Your task to perform on an android device: Search for the best rated electric lawnmower on Home Depot Image 0: 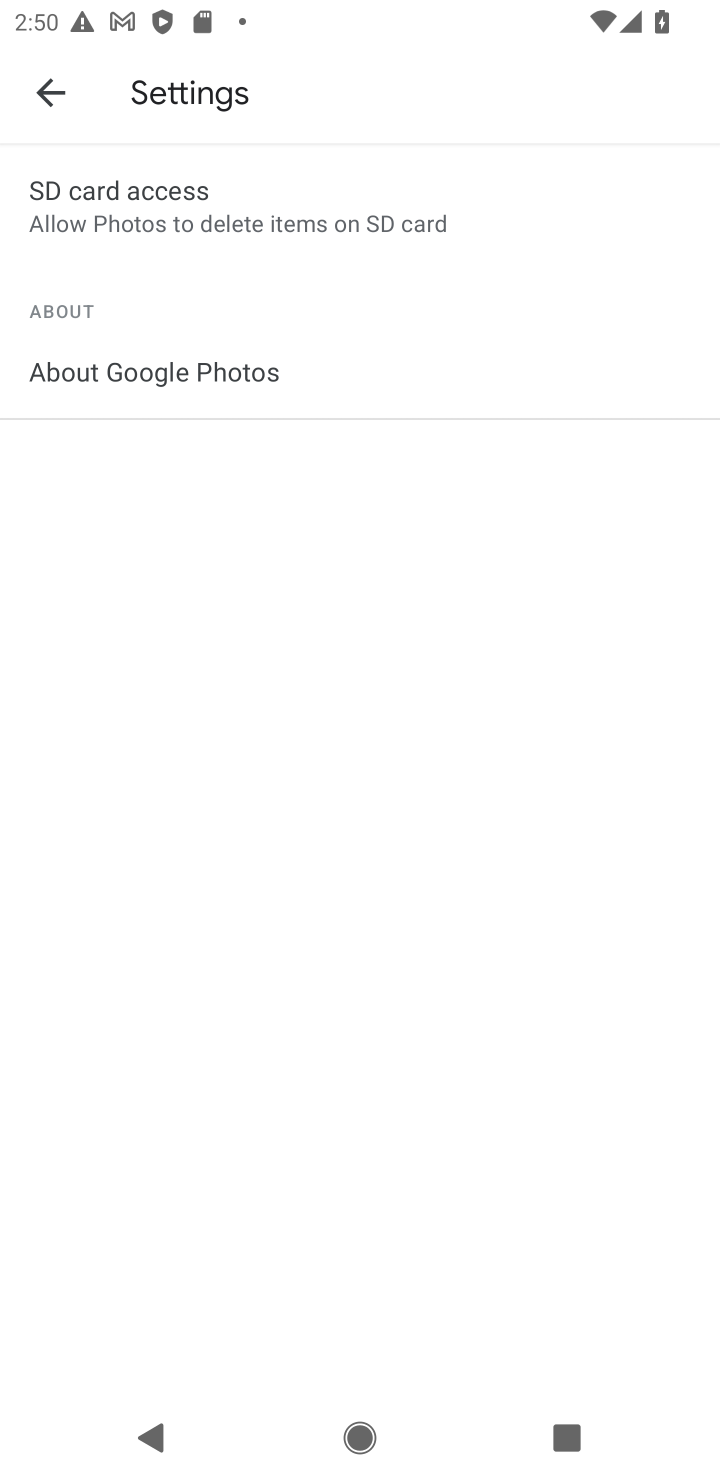
Step 0: press home button
Your task to perform on an android device: Search for the best rated electric lawnmower on Home Depot Image 1: 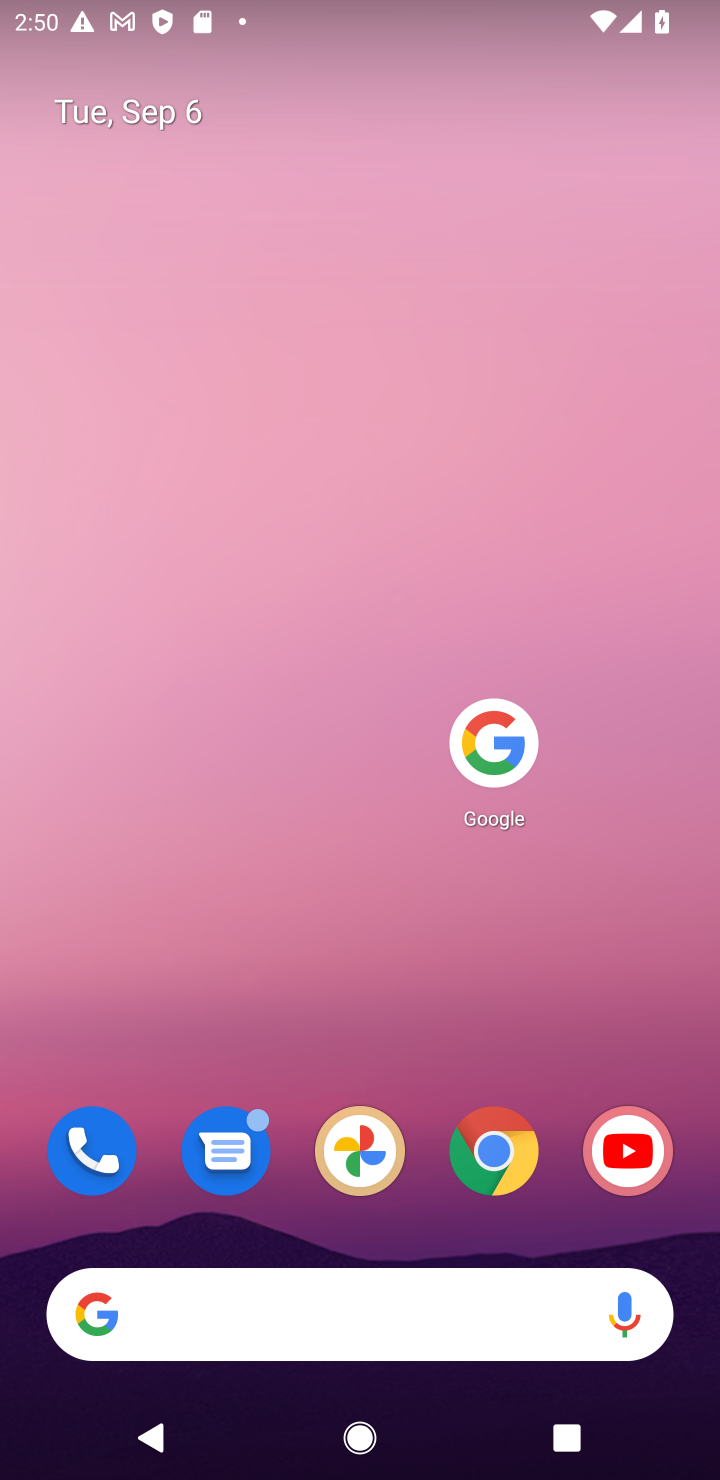
Step 1: click (497, 729)
Your task to perform on an android device: Search for the best rated electric lawnmower on Home Depot Image 2: 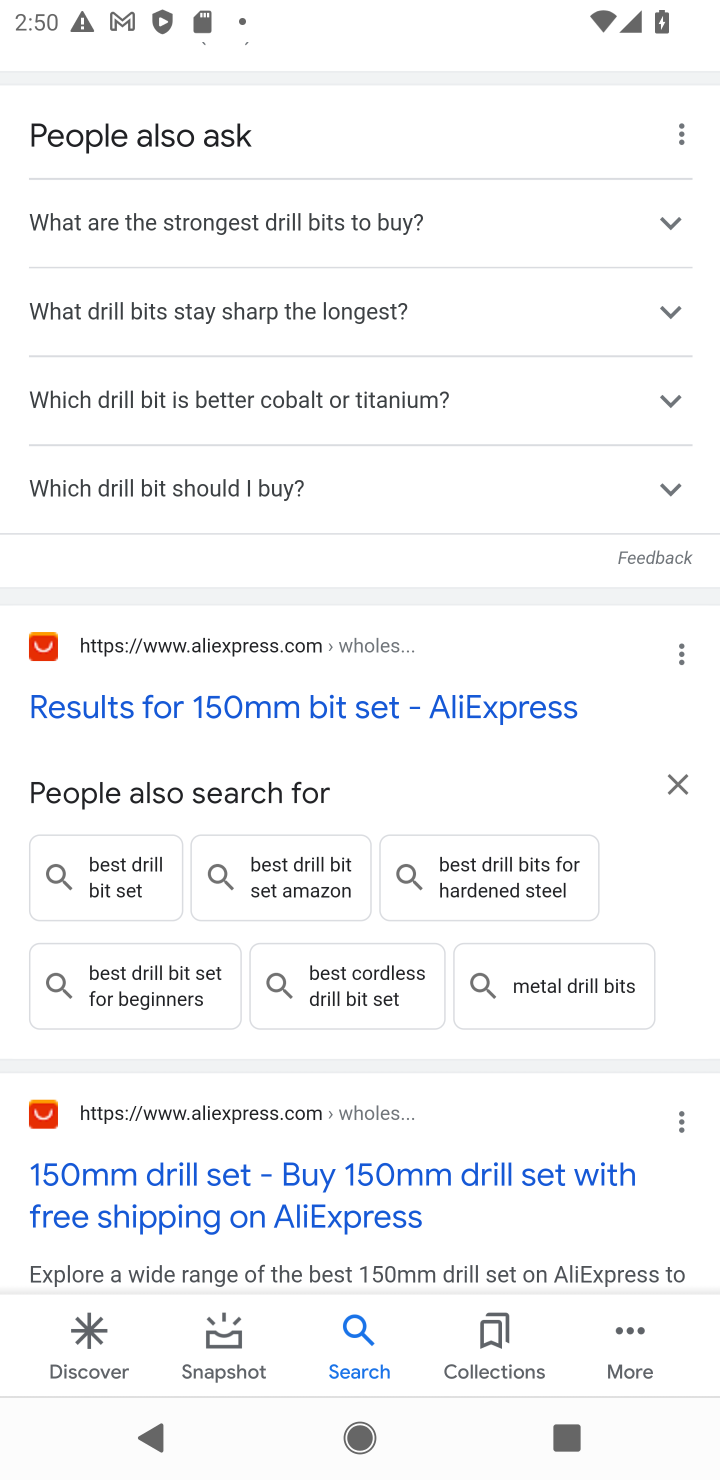
Step 2: drag from (278, 206) to (317, 1287)
Your task to perform on an android device: Search for the best rated electric lawnmower on Home Depot Image 3: 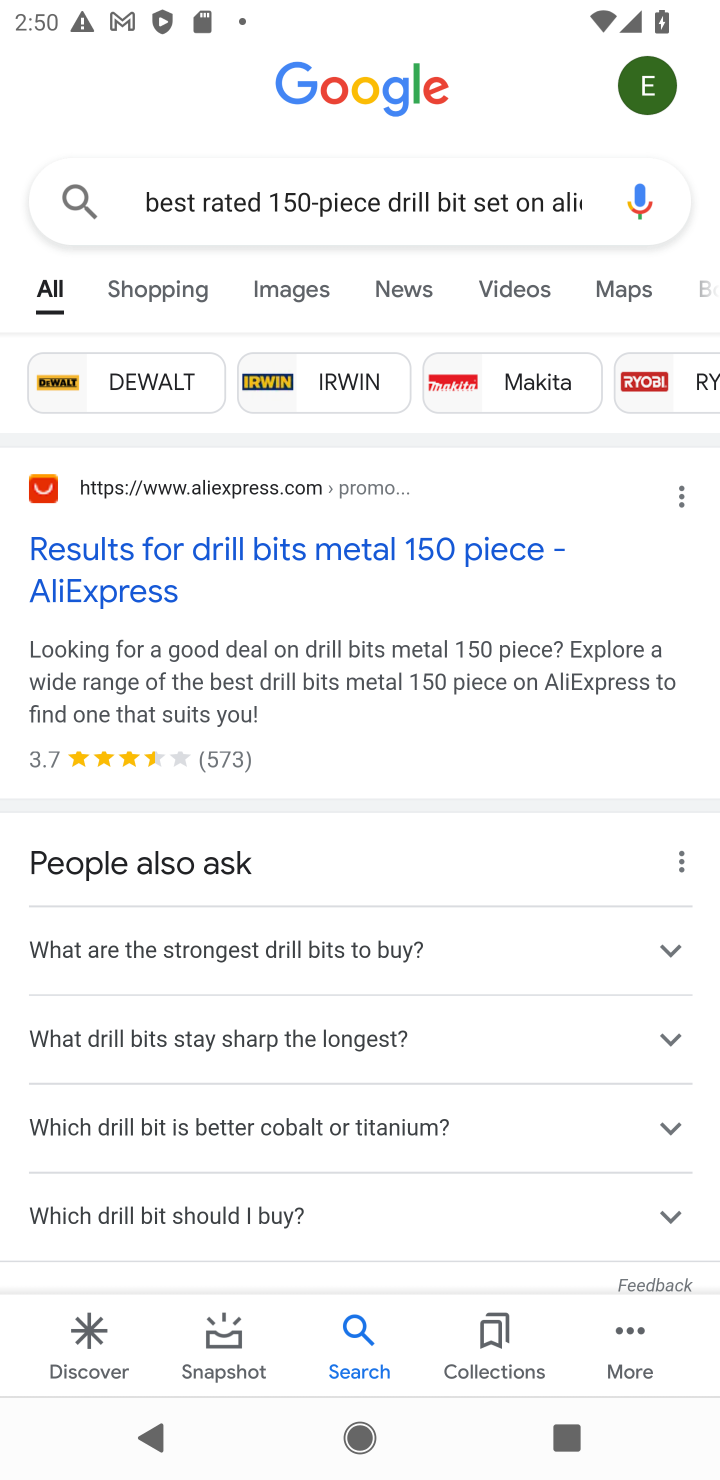
Step 3: drag from (332, 190) to (412, 1105)
Your task to perform on an android device: Search for the best rated electric lawnmower on Home Depot Image 4: 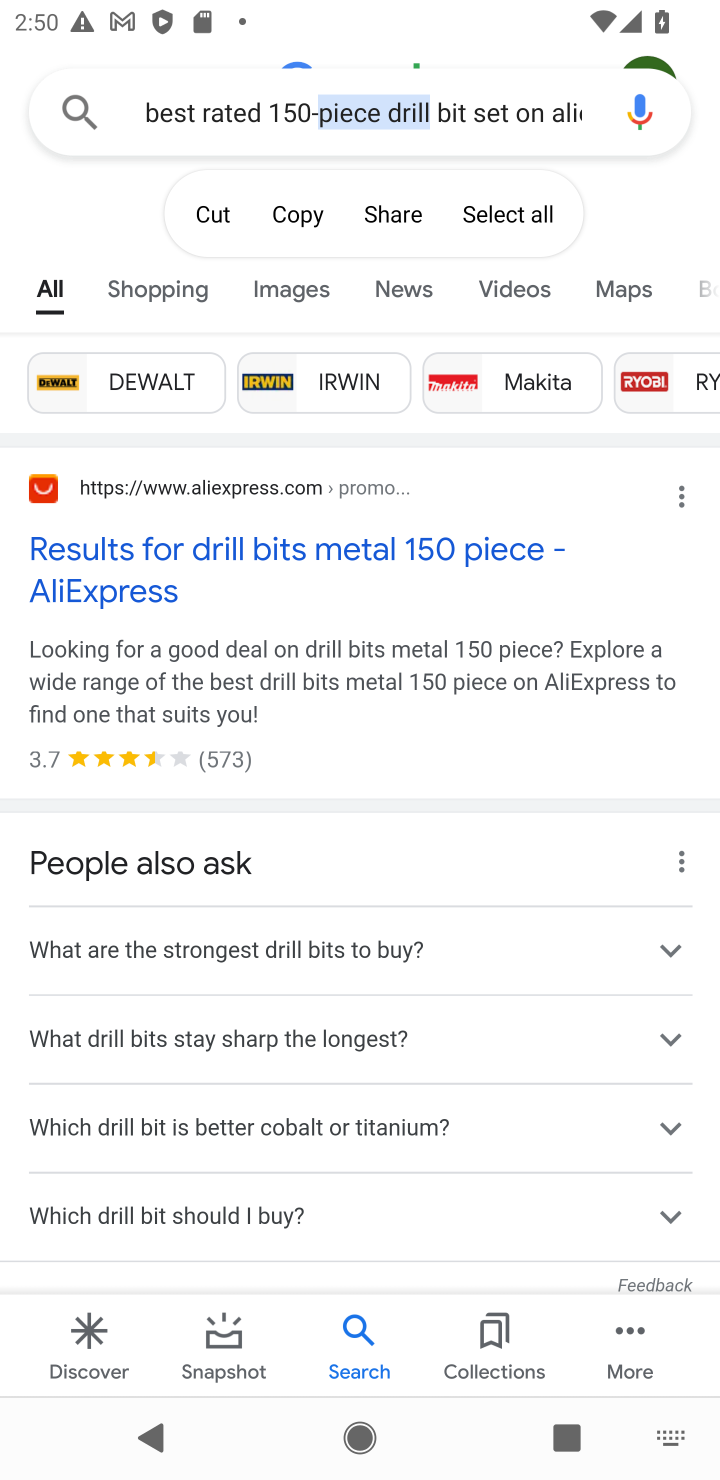
Step 4: click (401, 189)
Your task to perform on an android device: Search for the best rated electric lawnmower on Home Depot Image 5: 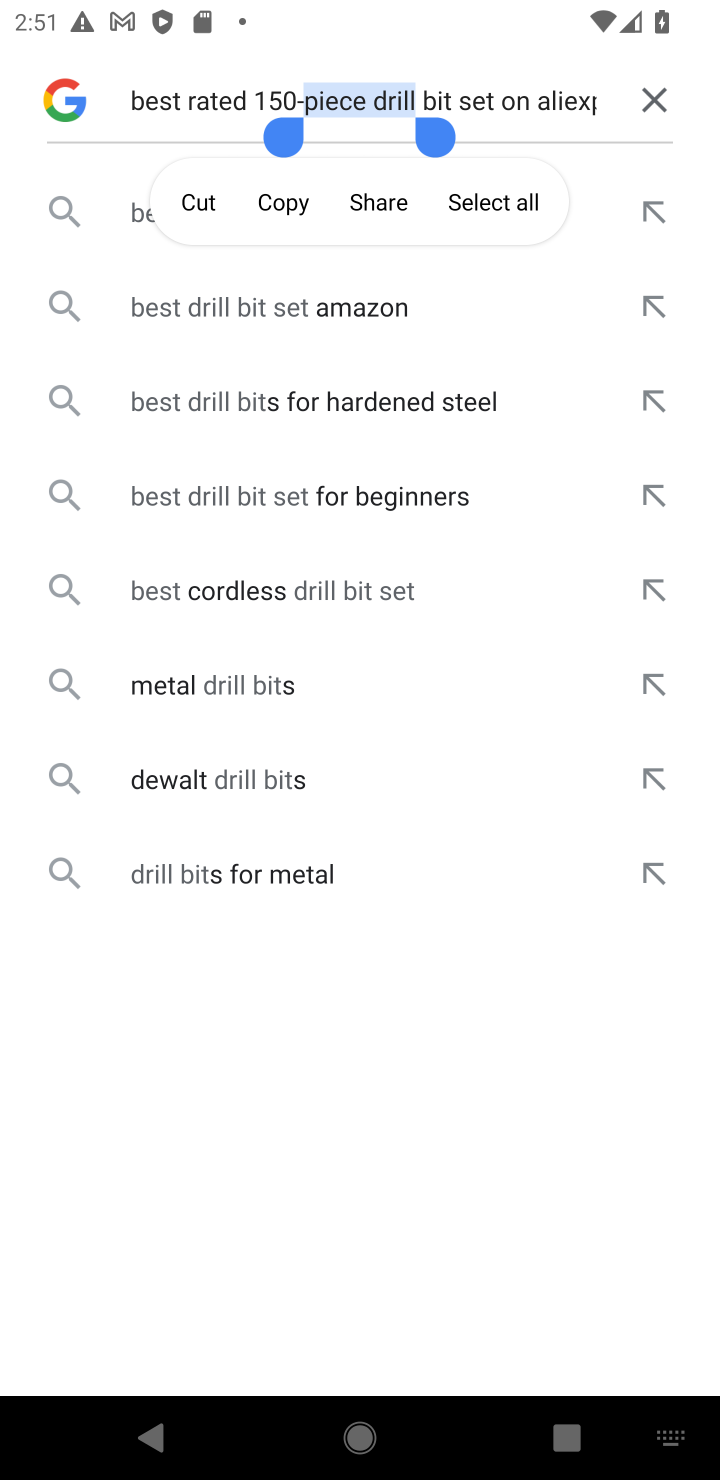
Step 5: click (658, 89)
Your task to perform on an android device: Search for the best rated electric lawnmower on Home Depot Image 6: 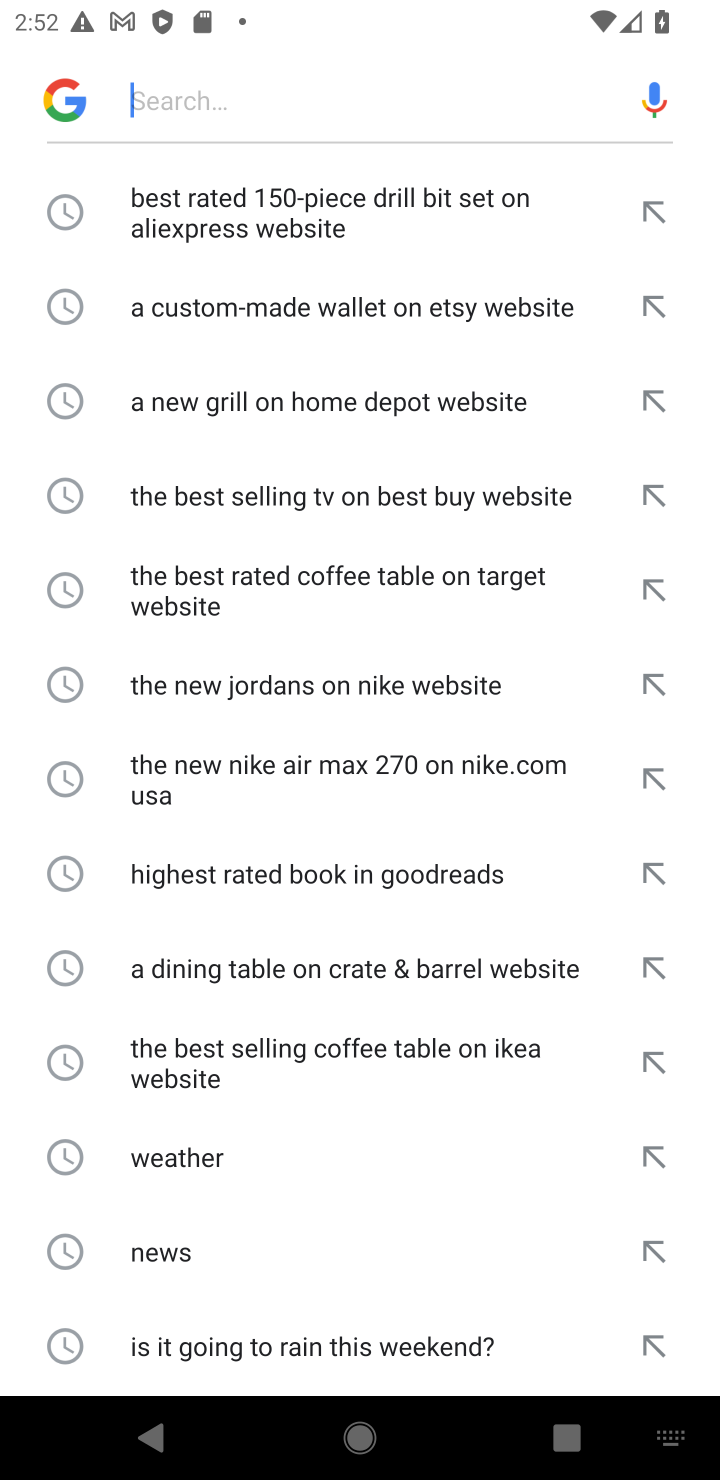
Step 6: click (406, 117)
Your task to perform on an android device: Search for the best rated electric lawnmower on Home Depot Image 7: 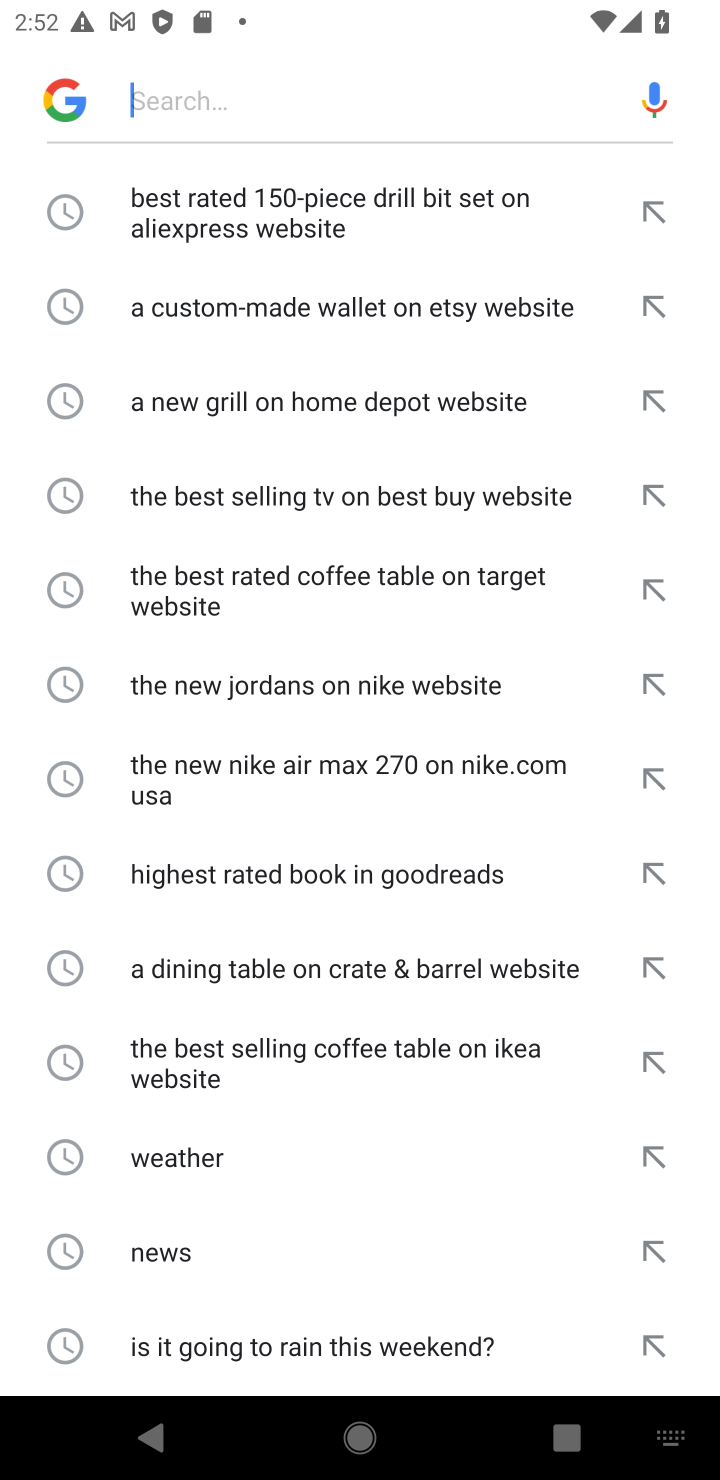
Step 7: type " the best rated electric lawnmower on Home Depot "
Your task to perform on an android device: Search for the best rated electric lawnmower on Home Depot Image 8: 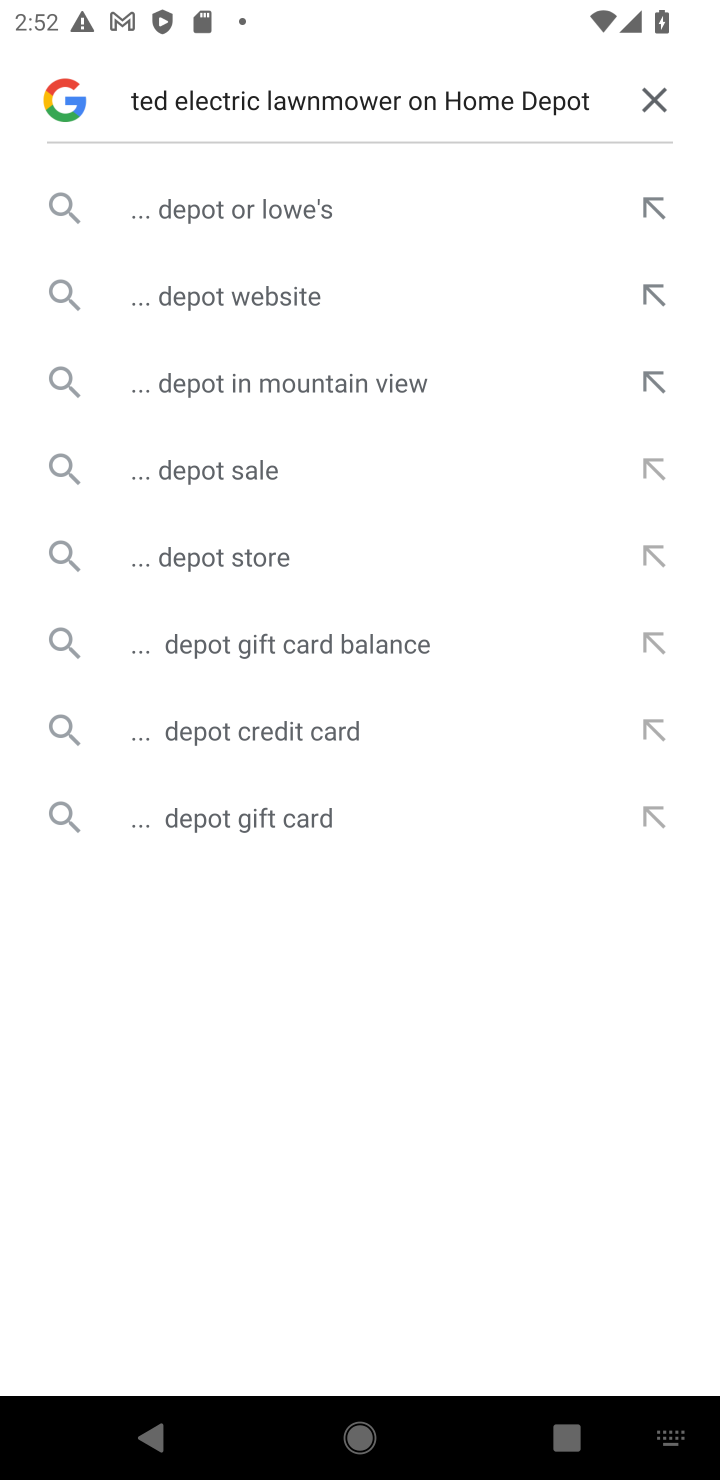
Step 8: click (265, 303)
Your task to perform on an android device: Search for the best rated electric lawnmower on Home Depot Image 9: 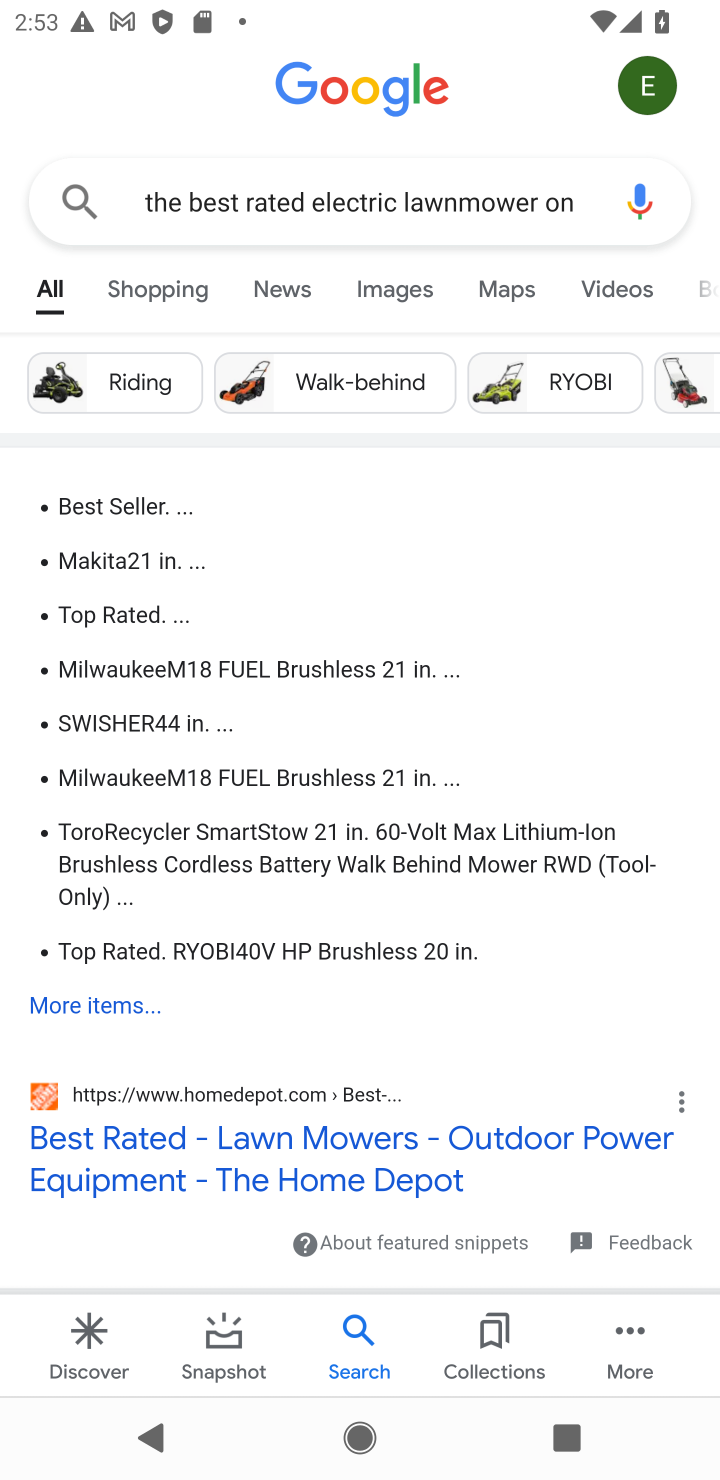
Step 9: task complete